Your task to perform on an android device: Open Google Chrome and click the shortcut for Amazon.com Image 0: 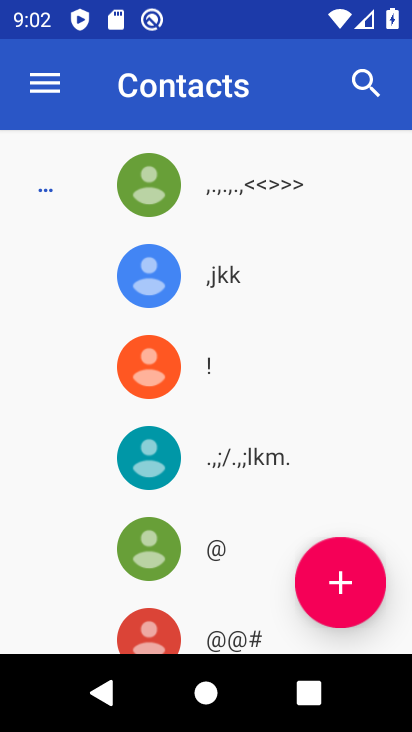
Step 0: press home button
Your task to perform on an android device: Open Google Chrome and click the shortcut for Amazon.com Image 1: 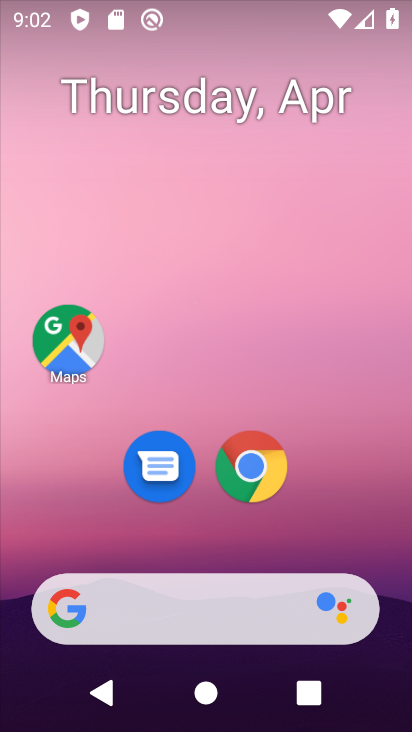
Step 1: click (252, 469)
Your task to perform on an android device: Open Google Chrome and click the shortcut for Amazon.com Image 2: 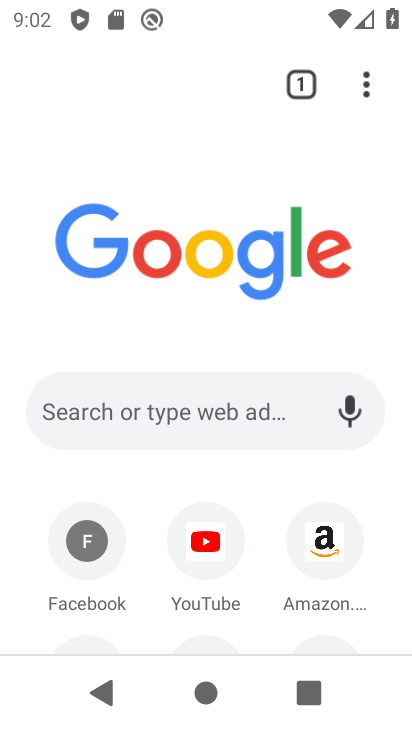
Step 2: click (326, 537)
Your task to perform on an android device: Open Google Chrome and click the shortcut for Amazon.com Image 3: 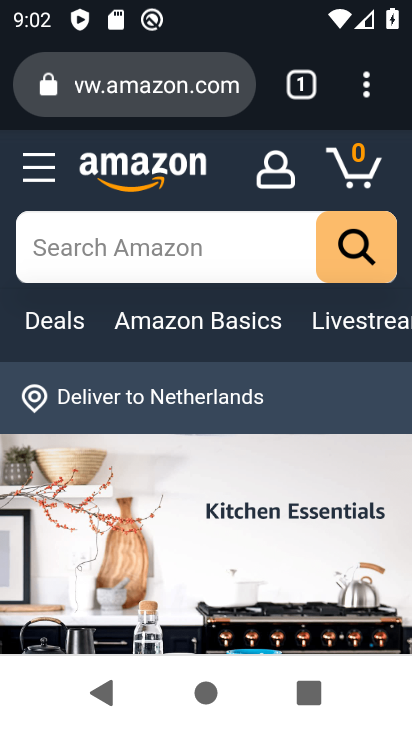
Step 3: task complete